Your task to perform on an android device: install app "Pinterest" Image 0: 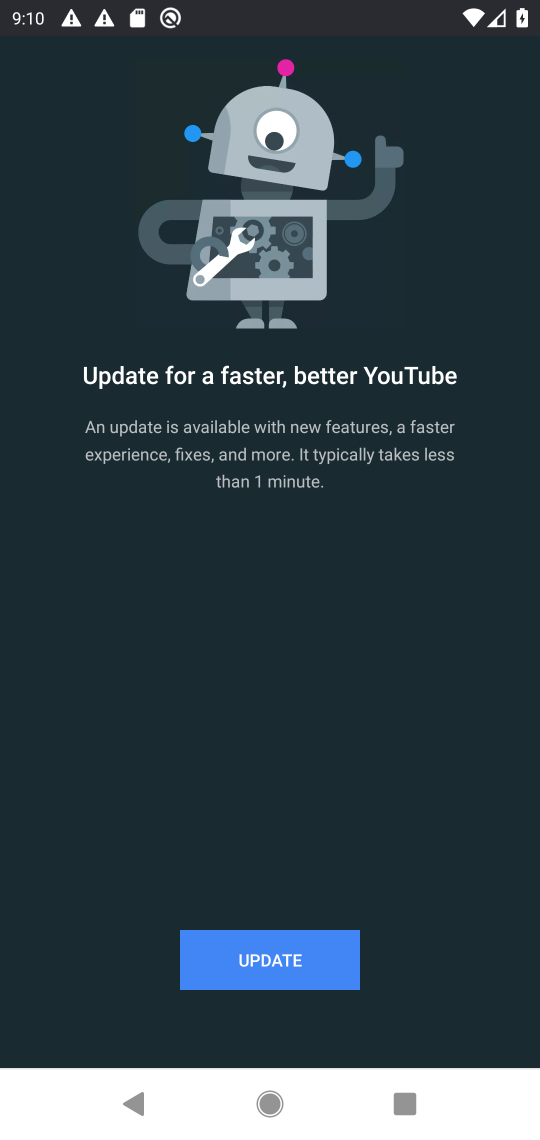
Step 0: press home button
Your task to perform on an android device: install app "Pinterest" Image 1: 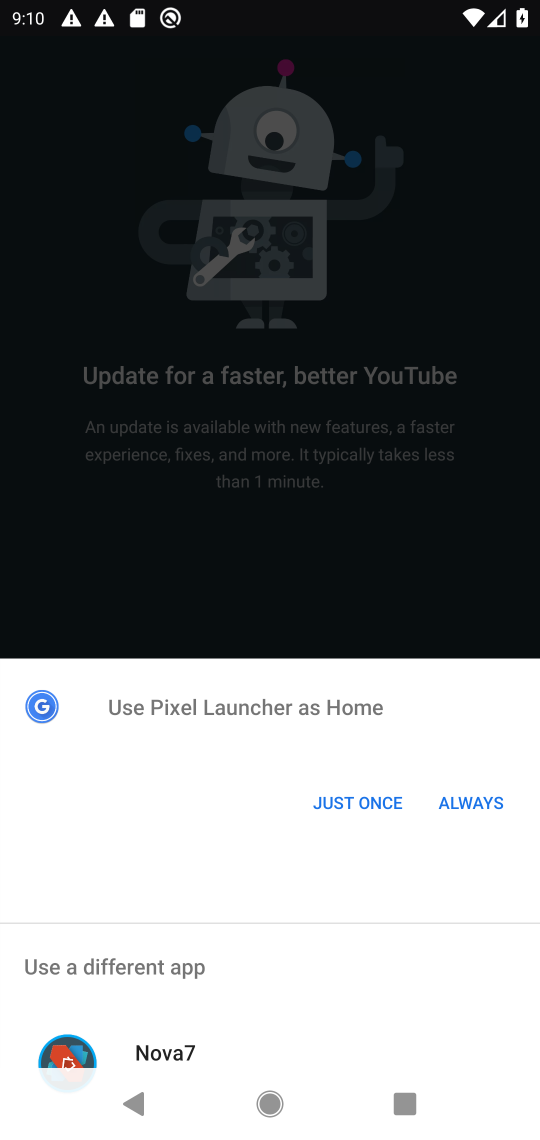
Step 1: click (340, 812)
Your task to perform on an android device: install app "Pinterest" Image 2: 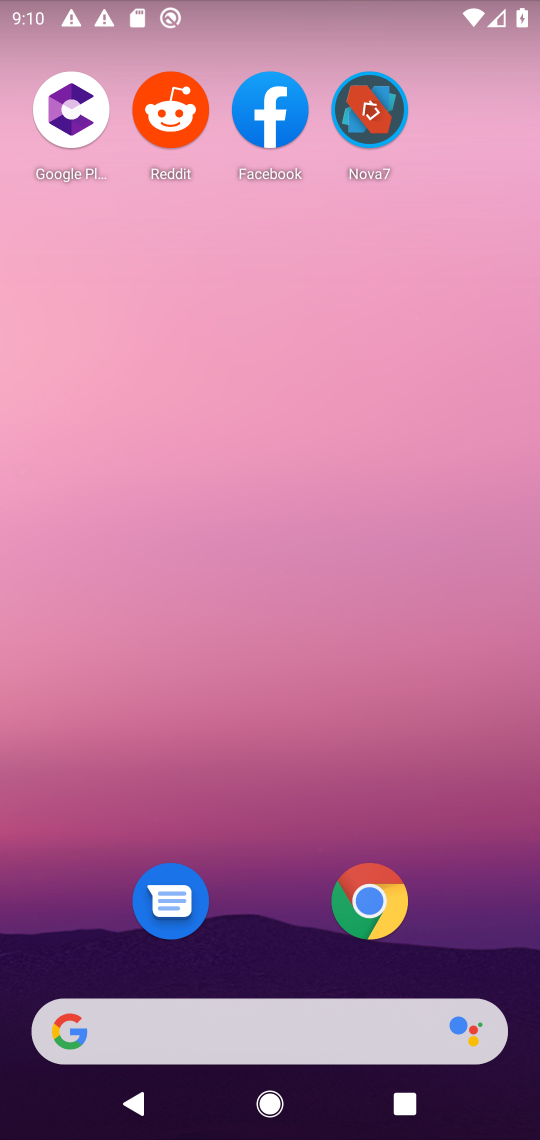
Step 2: drag from (317, 1012) to (406, 10)
Your task to perform on an android device: install app "Pinterest" Image 3: 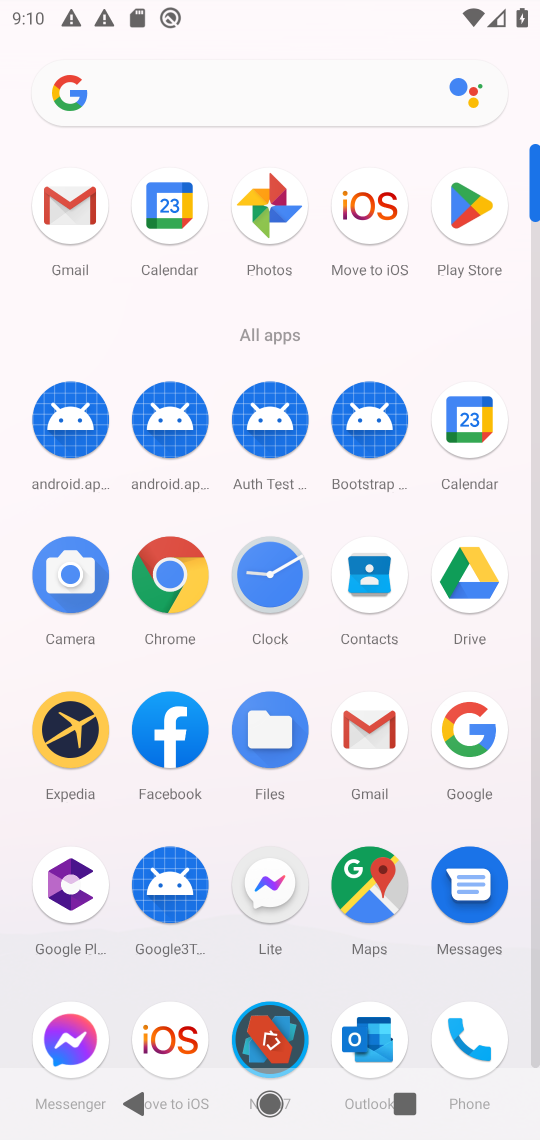
Step 3: click (461, 217)
Your task to perform on an android device: install app "Pinterest" Image 4: 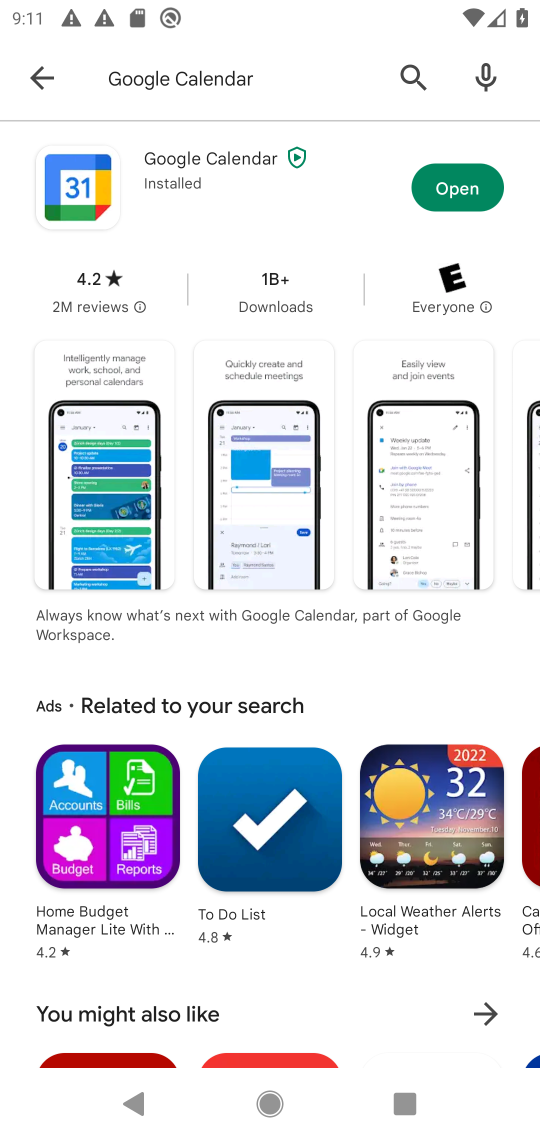
Step 4: press back button
Your task to perform on an android device: install app "Pinterest" Image 5: 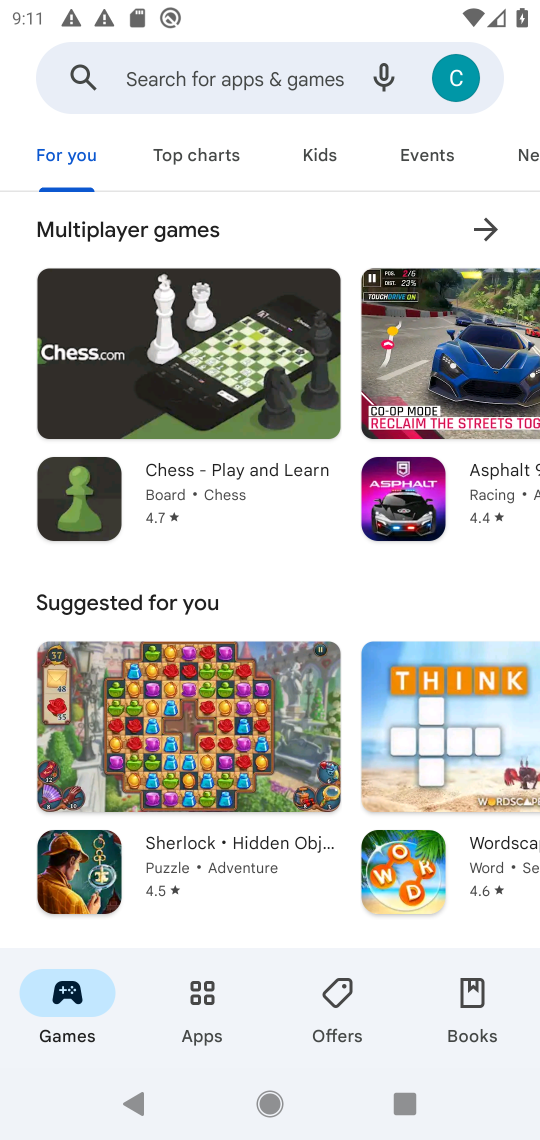
Step 5: click (288, 65)
Your task to perform on an android device: install app "Pinterest" Image 6: 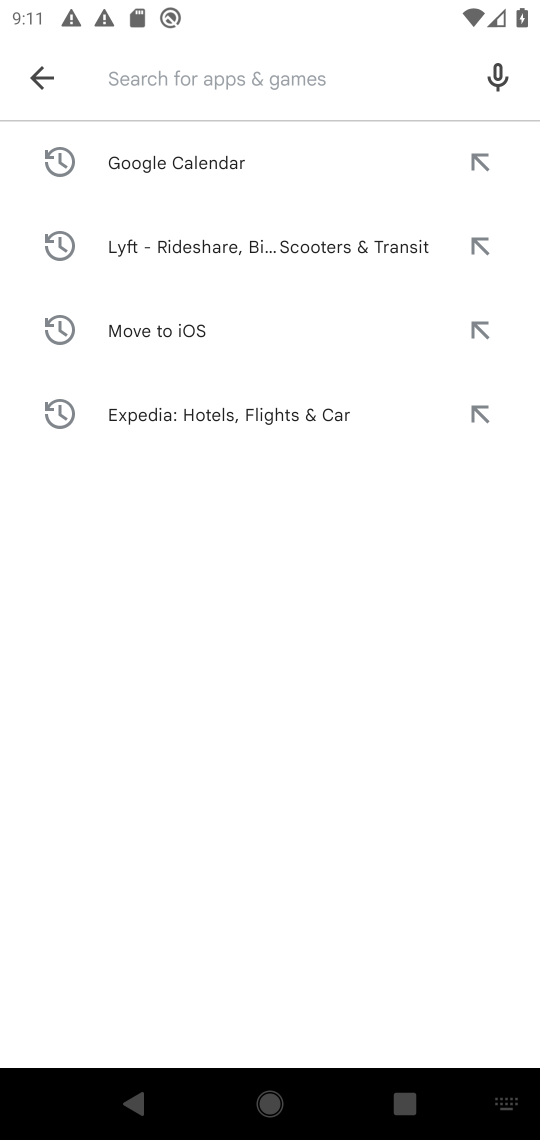
Step 6: type "Pinterest"
Your task to perform on an android device: install app "Pinterest" Image 7: 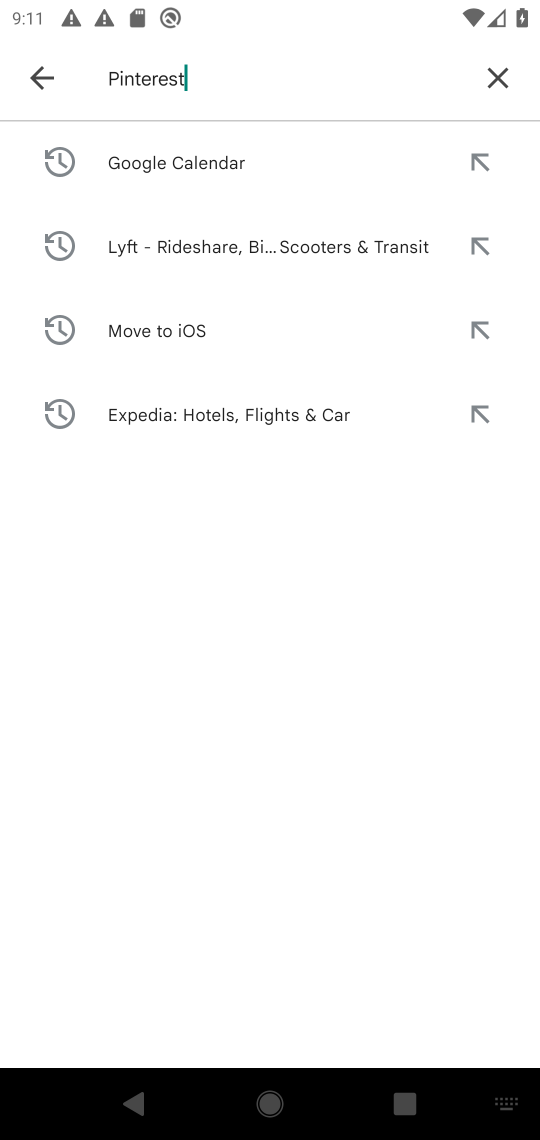
Step 7: press enter
Your task to perform on an android device: install app "Pinterest" Image 8: 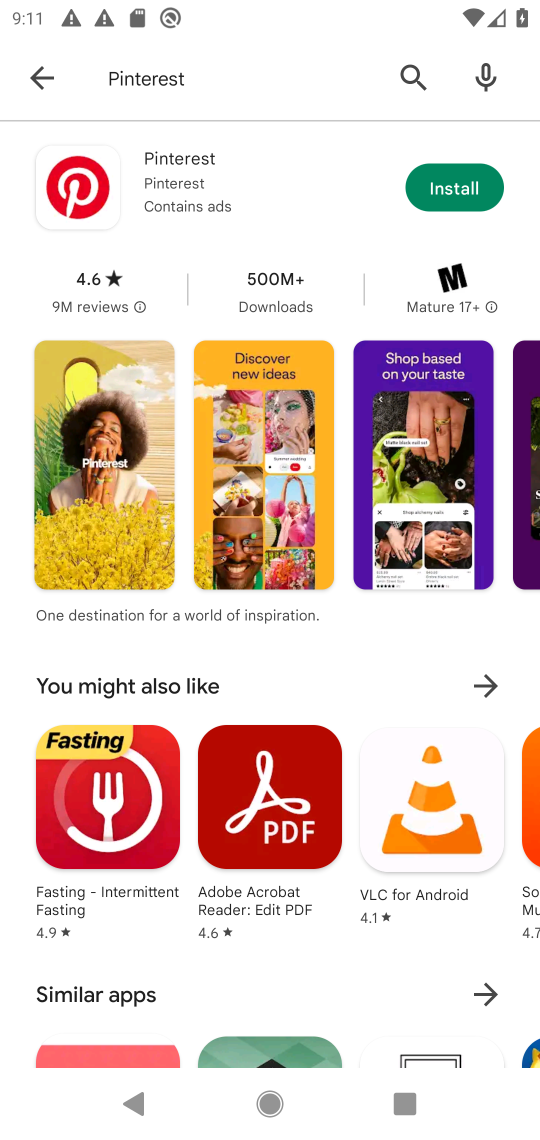
Step 8: click (437, 191)
Your task to perform on an android device: install app "Pinterest" Image 9: 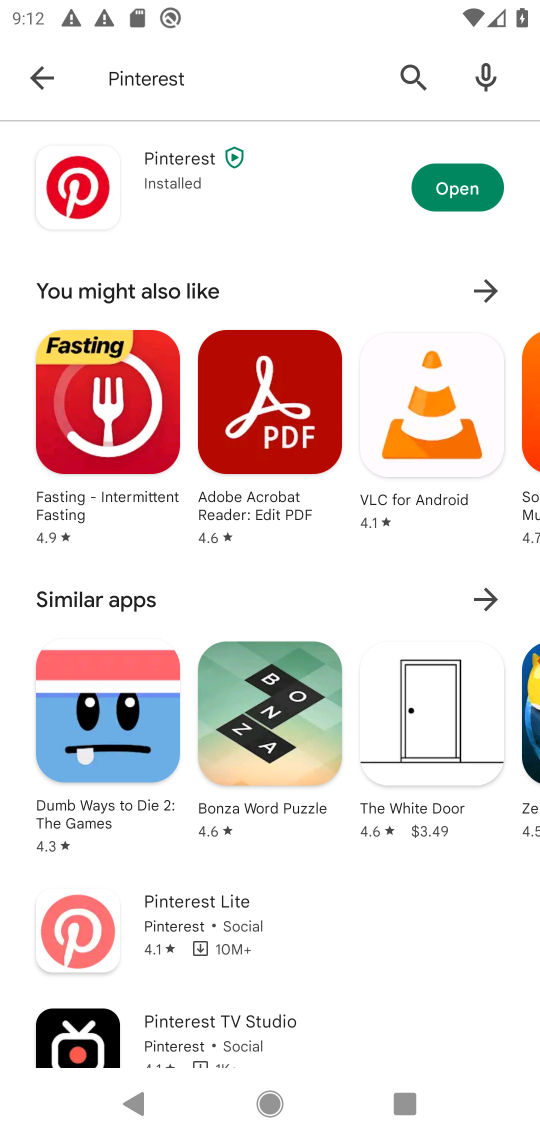
Step 9: task complete